Your task to perform on an android device: turn on showing notifications on the lock screen Image 0: 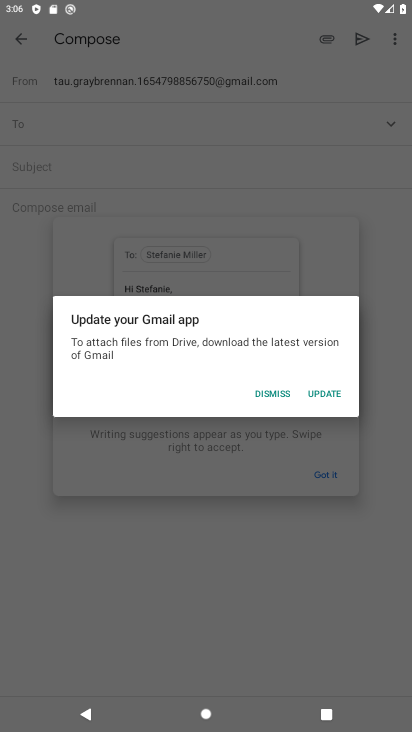
Step 0: press home button
Your task to perform on an android device: turn on showing notifications on the lock screen Image 1: 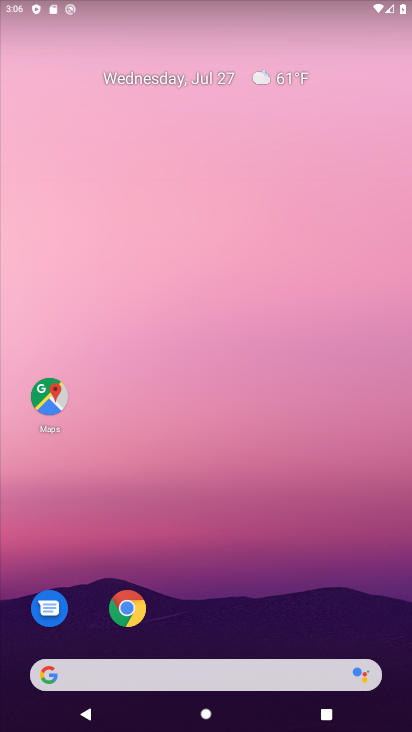
Step 1: drag from (300, 598) to (241, 249)
Your task to perform on an android device: turn on showing notifications on the lock screen Image 2: 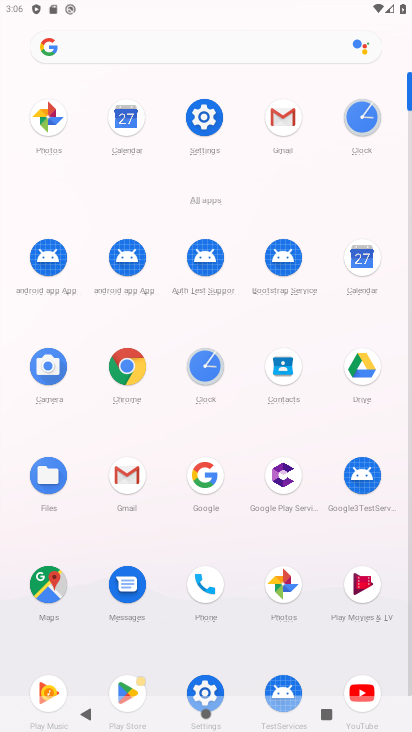
Step 2: click (205, 105)
Your task to perform on an android device: turn on showing notifications on the lock screen Image 3: 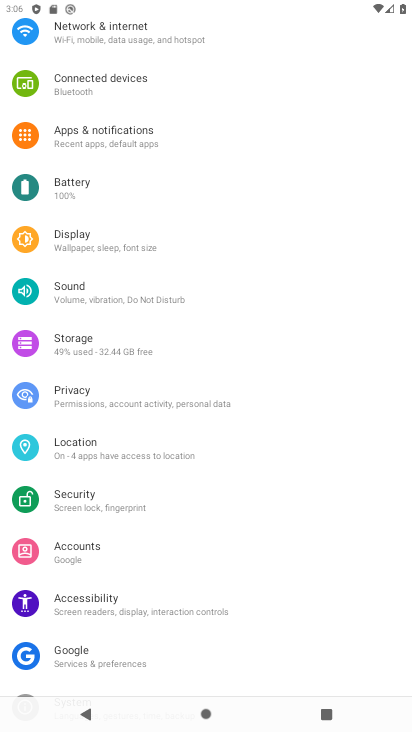
Step 3: click (149, 135)
Your task to perform on an android device: turn on showing notifications on the lock screen Image 4: 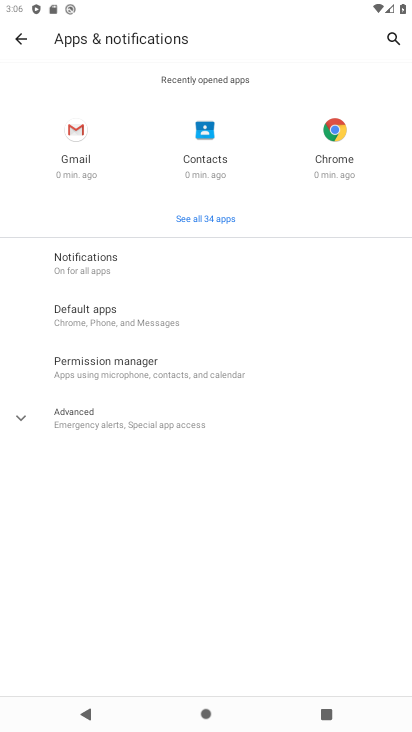
Step 4: click (127, 275)
Your task to perform on an android device: turn on showing notifications on the lock screen Image 5: 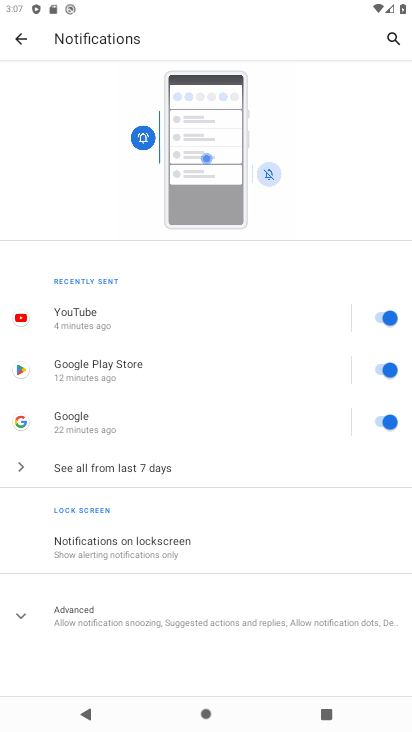
Step 5: click (146, 548)
Your task to perform on an android device: turn on showing notifications on the lock screen Image 6: 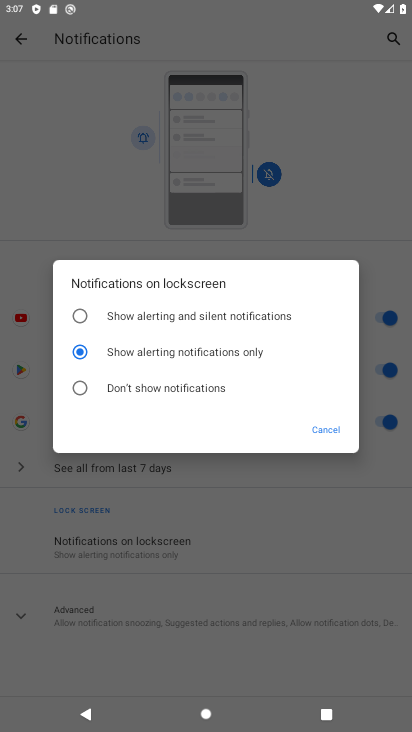
Step 6: click (193, 306)
Your task to perform on an android device: turn on showing notifications on the lock screen Image 7: 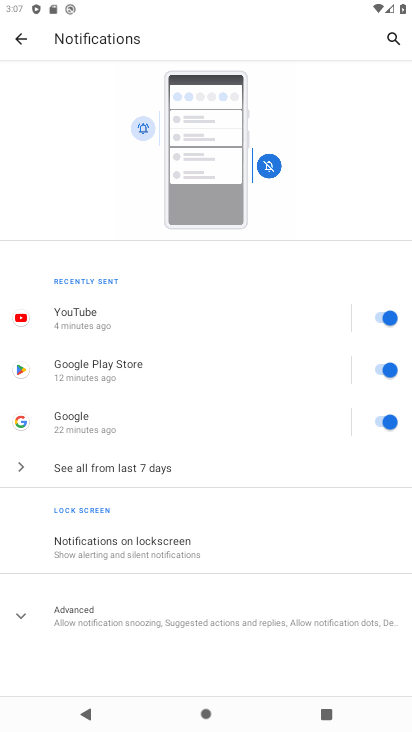
Step 7: task complete